Your task to perform on an android device: visit the assistant section in the google photos Image 0: 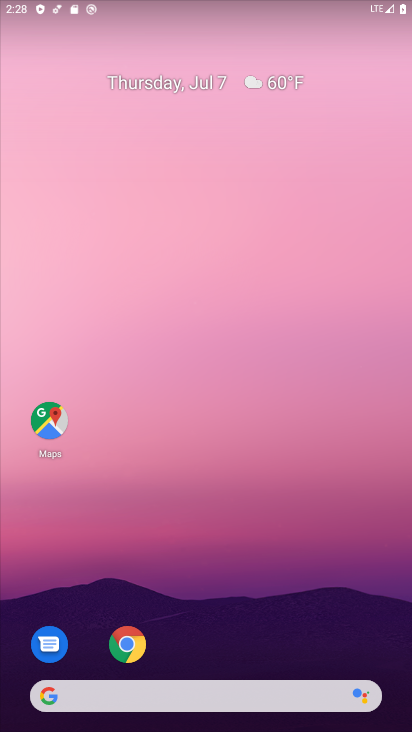
Step 0: drag from (204, 694) to (252, 495)
Your task to perform on an android device: visit the assistant section in the google photos Image 1: 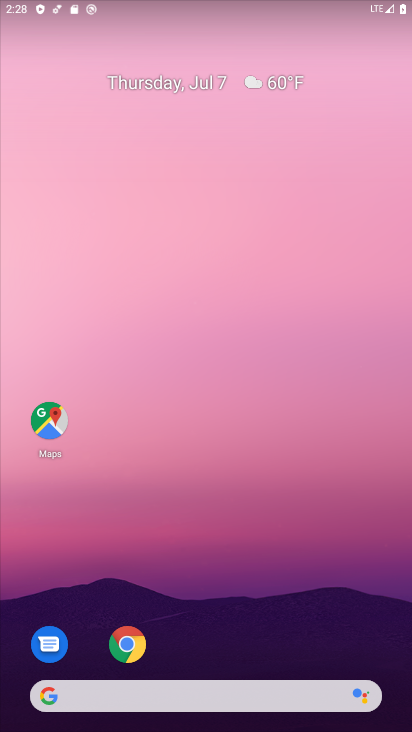
Step 1: drag from (190, 698) to (150, 130)
Your task to perform on an android device: visit the assistant section in the google photos Image 2: 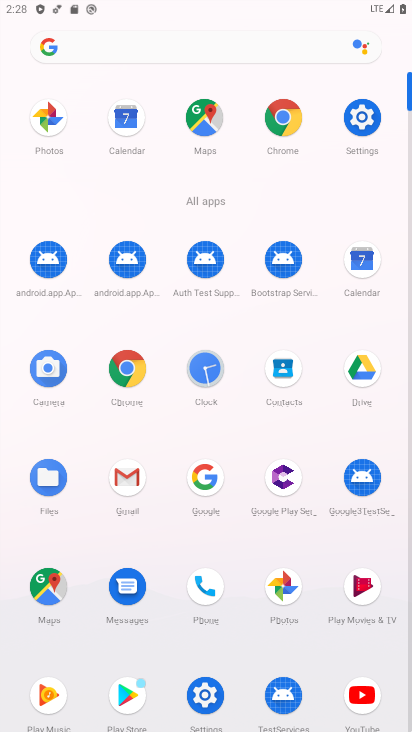
Step 2: click (271, 590)
Your task to perform on an android device: visit the assistant section in the google photos Image 3: 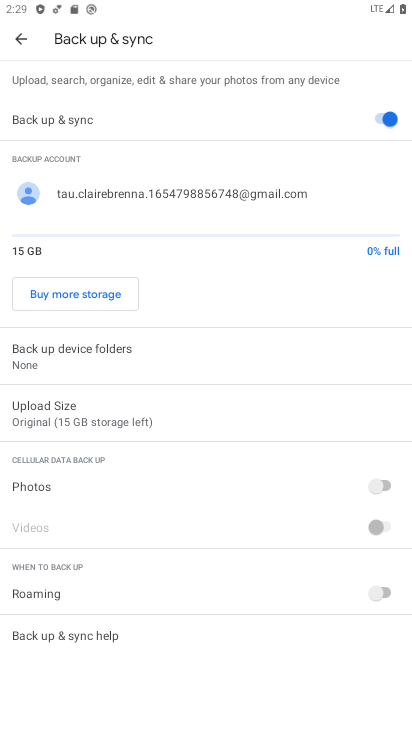
Step 3: click (19, 41)
Your task to perform on an android device: visit the assistant section in the google photos Image 4: 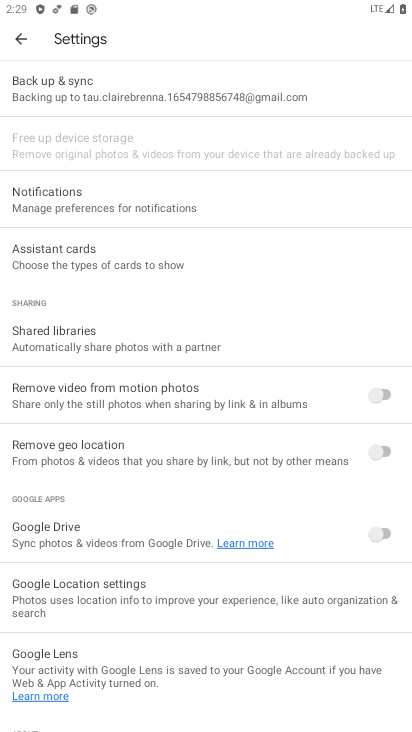
Step 4: click (19, 41)
Your task to perform on an android device: visit the assistant section in the google photos Image 5: 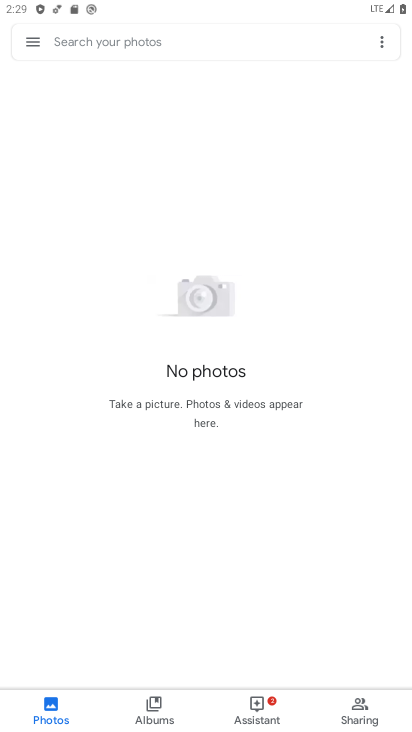
Step 5: click (274, 701)
Your task to perform on an android device: visit the assistant section in the google photos Image 6: 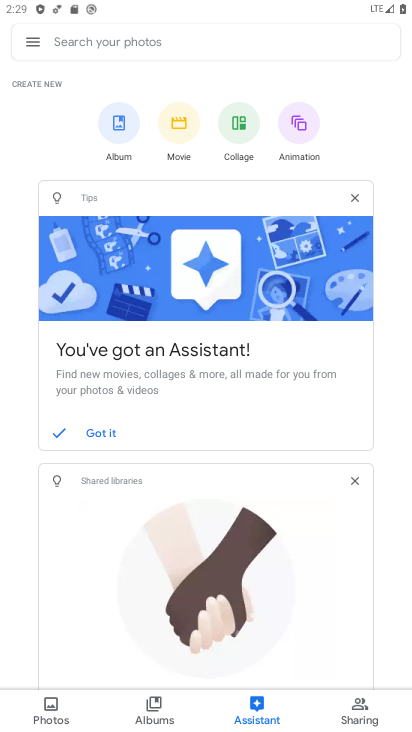
Step 6: task complete